Your task to perform on an android device: turn on bluetooth scan Image 0: 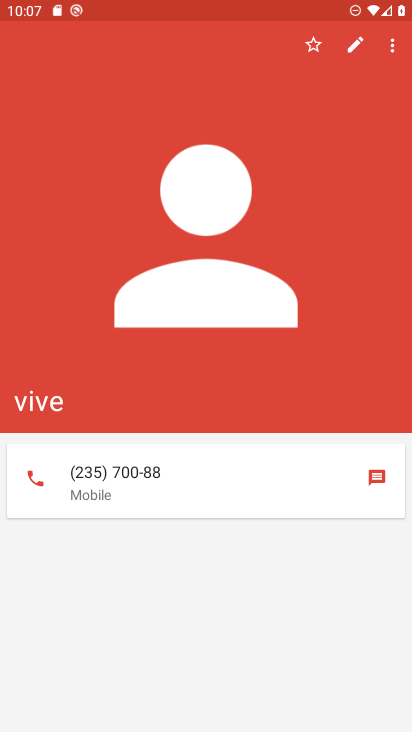
Step 0: press home button
Your task to perform on an android device: turn on bluetooth scan Image 1: 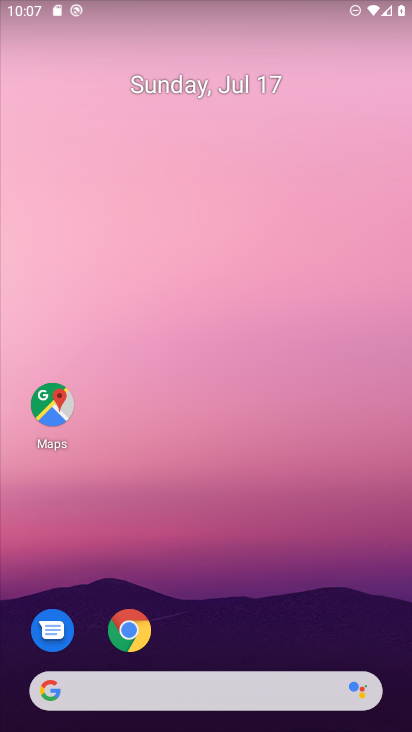
Step 1: drag from (227, 615) to (208, 177)
Your task to perform on an android device: turn on bluetooth scan Image 2: 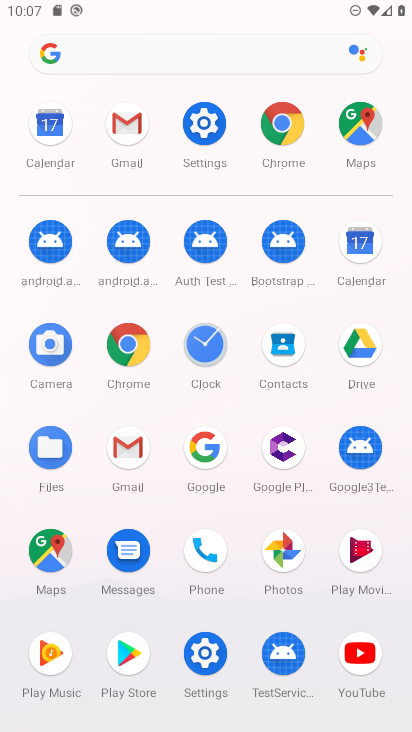
Step 2: click (203, 113)
Your task to perform on an android device: turn on bluetooth scan Image 3: 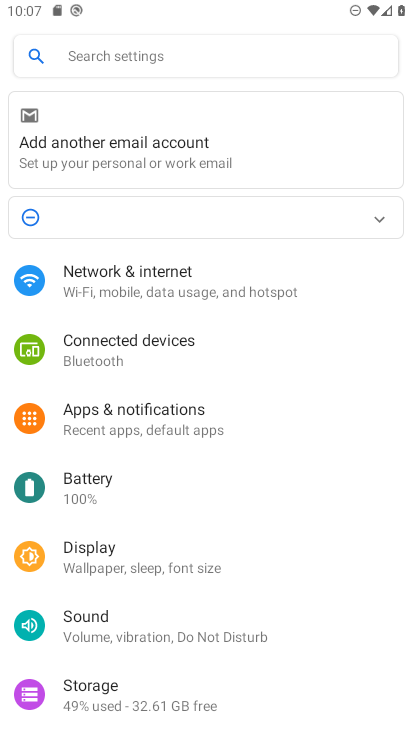
Step 3: click (209, 268)
Your task to perform on an android device: turn on bluetooth scan Image 4: 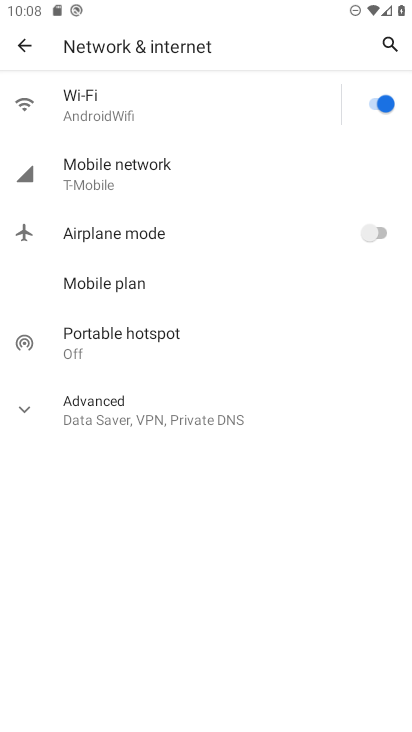
Step 4: click (33, 36)
Your task to perform on an android device: turn on bluetooth scan Image 5: 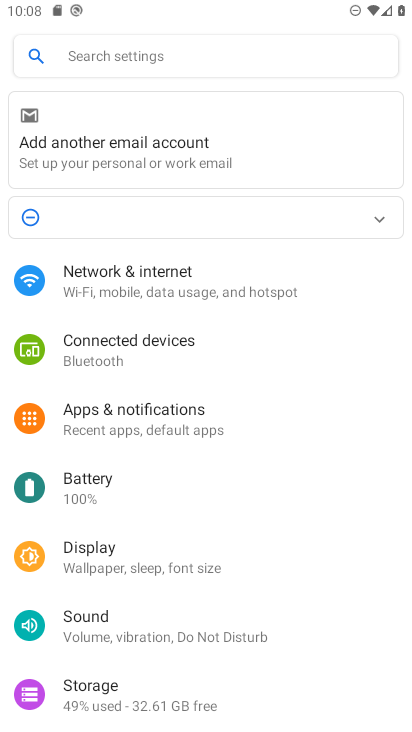
Step 5: click (159, 46)
Your task to perform on an android device: turn on bluetooth scan Image 6: 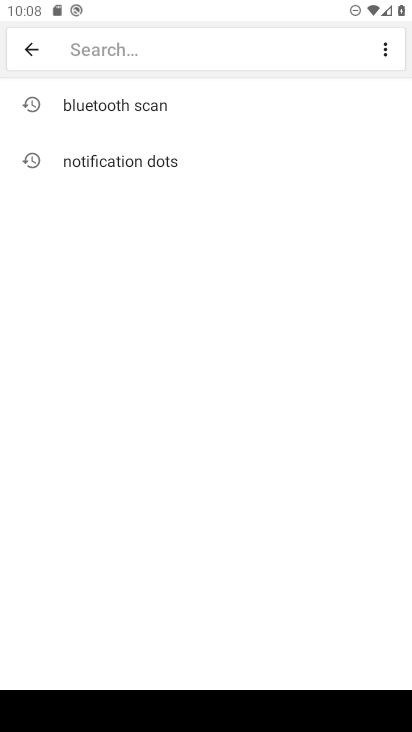
Step 6: click (116, 87)
Your task to perform on an android device: turn on bluetooth scan Image 7: 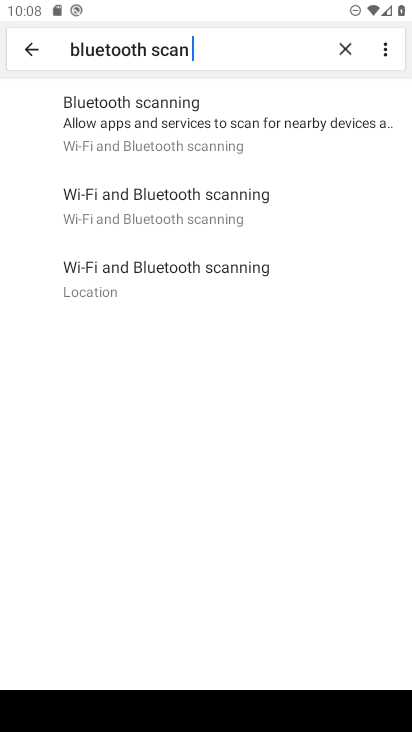
Step 7: click (150, 118)
Your task to perform on an android device: turn on bluetooth scan Image 8: 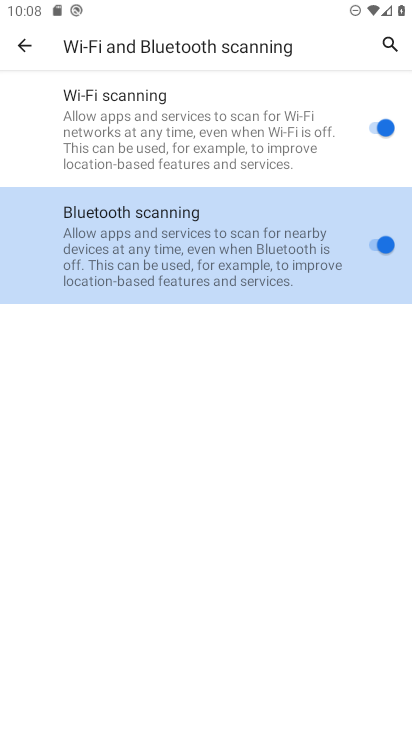
Step 8: task complete